Your task to perform on an android device: When is my next appointment? Image 0: 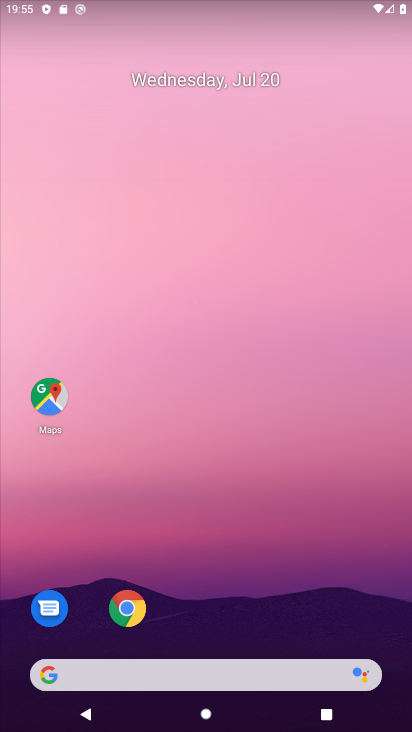
Step 0: drag from (231, 530) to (250, 135)
Your task to perform on an android device: When is my next appointment? Image 1: 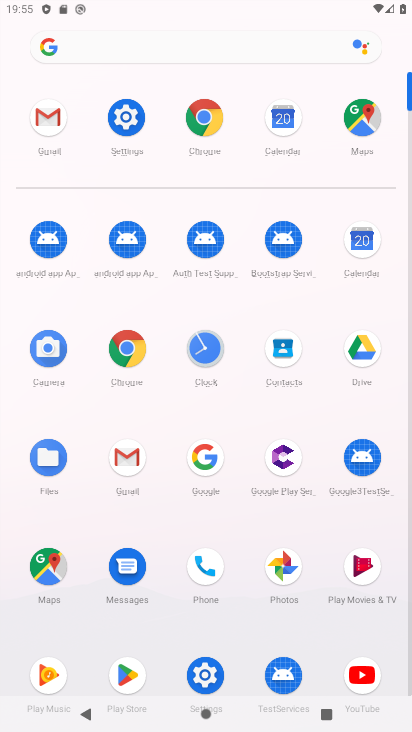
Step 1: click (362, 240)
Your task to perform on an android device: When is my next appointment? Image 2: 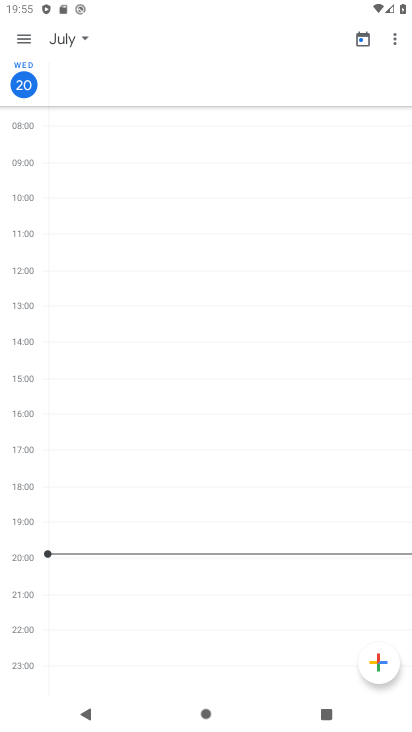
Step 2: click (27, 37)
Your task to perform on an android device: When is my next appointment? Image 3: 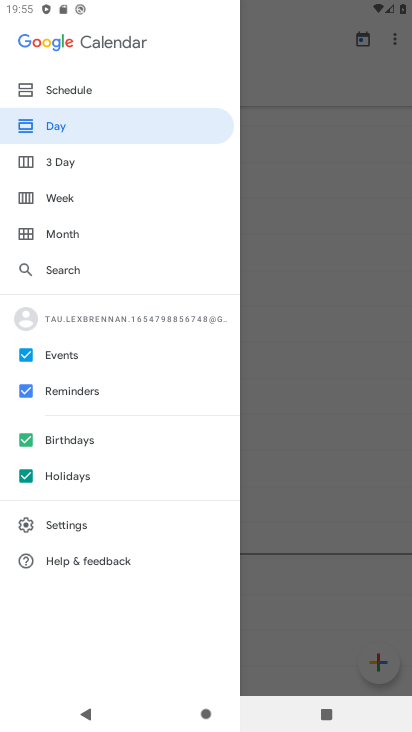
Step 3: click (335, 321)
Your task to perform on an android device: When is my next appointment? Image 4: 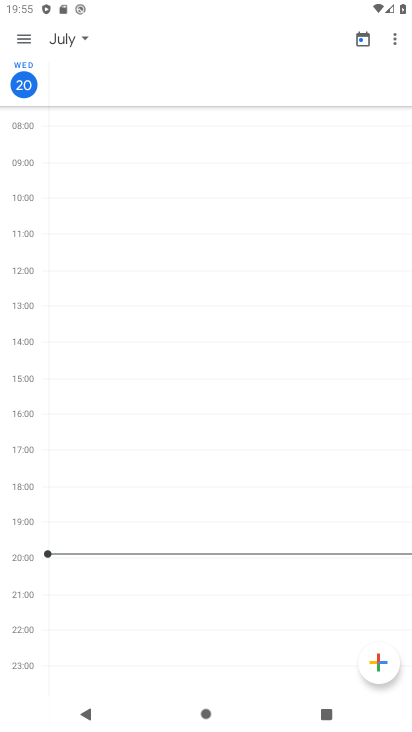
Step 4: task complete